Your task to perform on an android device: View the shopping cart on newegg. Image 0: 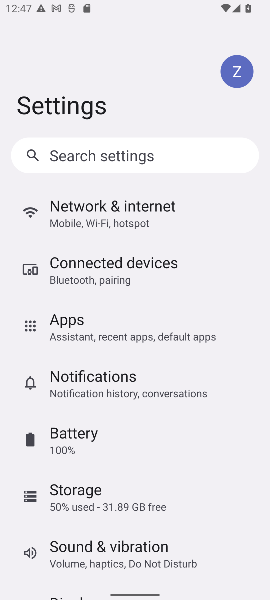
Step 0: press home button
Your task to perform on an android device: View the shopping cart on newegg. Image 1: 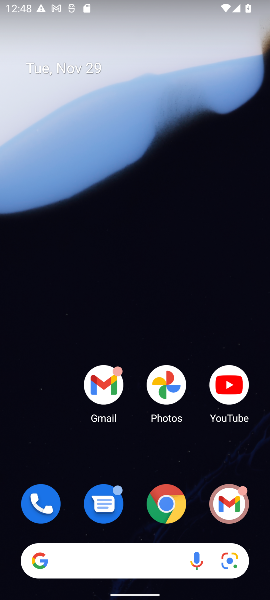
Step 1: click (164, 509)
Your task to perform on an android device: View the shopping cart on newegg. Image 2: 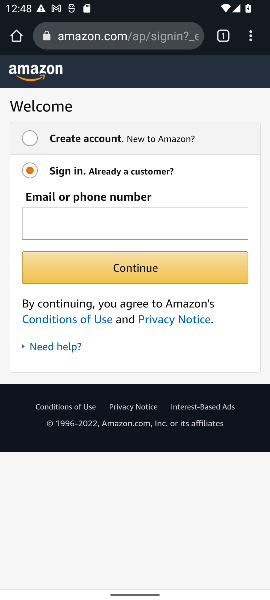
Step 2: click (112, 38)
Your task to perform on an android device: View the shopping cart on newegg. Image 3: 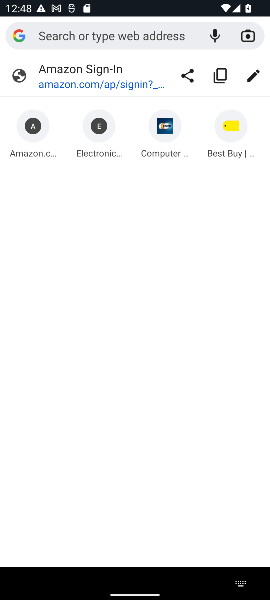
Step 3: click (158, 147)
Your task to perform on an android device: View the shopping cart on newegg. Image 4: 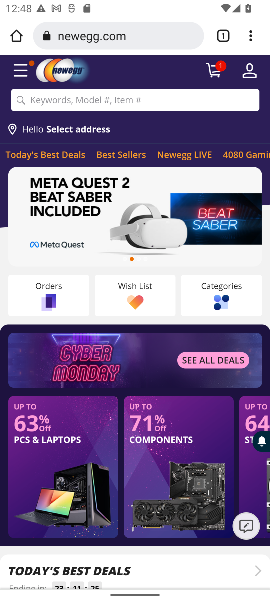
Step 4: click (212, 74)
Your task to perform on an android device: View the shopping cart on newegg. Image 5: 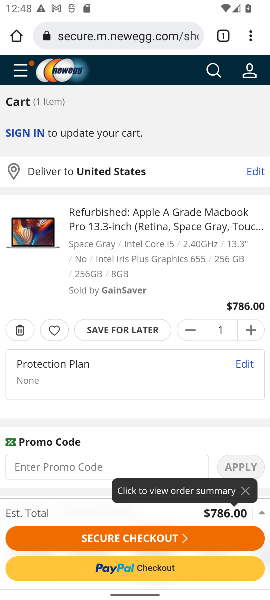
Step 5: click (212, 74)
Your task to perform on an android device: View the shopping cart on newegg. Image 6: 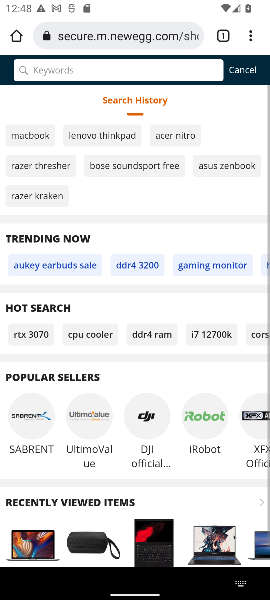
Step 6: task complete